Your task to perform on an android device: change the upload size in google photos Image 0: 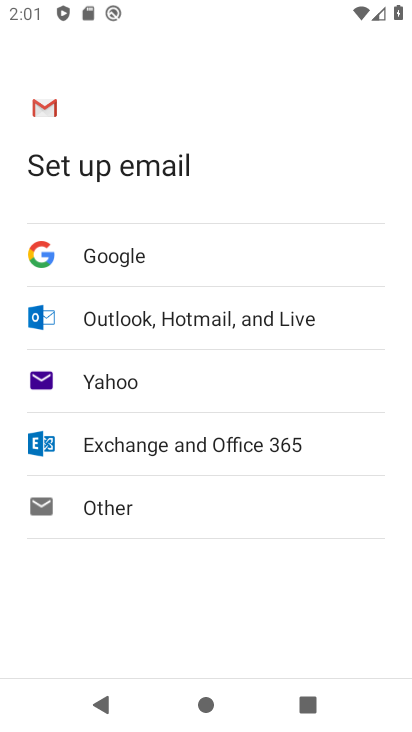
Step 0: press home button
Your task to perform on an android device: change the upload size in google photos Image 1: 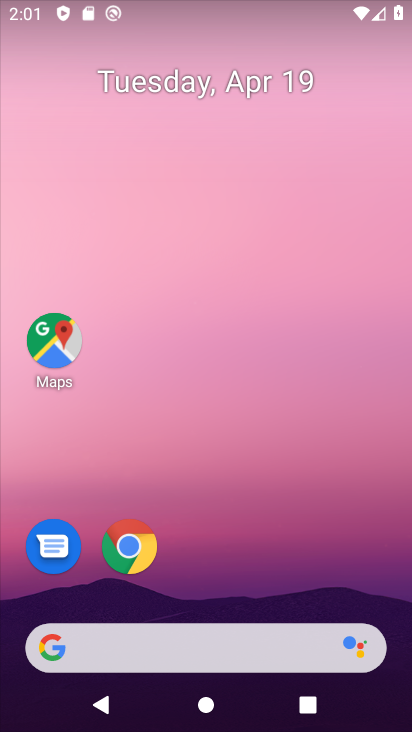
Step 1: drag from (206, 648) to (179, 105)
Your task to perform on an android device: change the upload size in google photos Image 2: 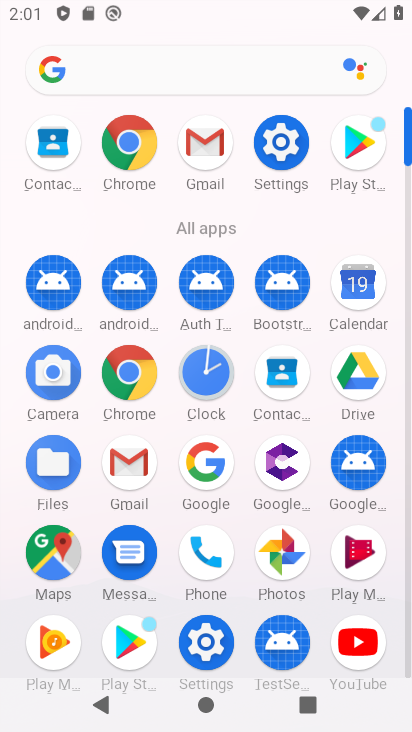
Step 2: click (281, 546)
Your task to perform on an android device: change the upload size in google photos Image 3: 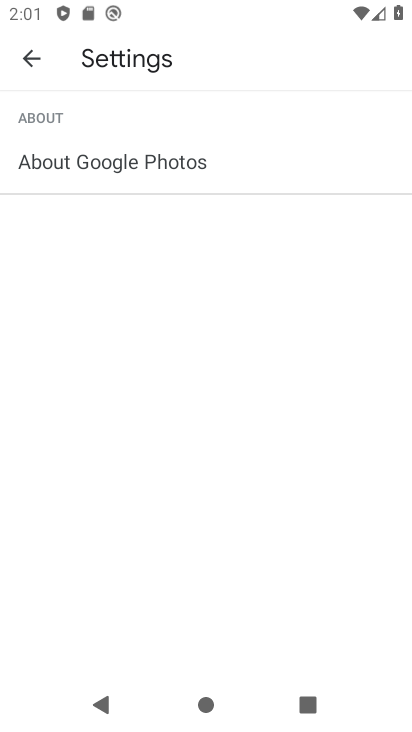
Step 3: click (31, 44)
Your task to perform on an android device: change the upload size in google photos Image 4: 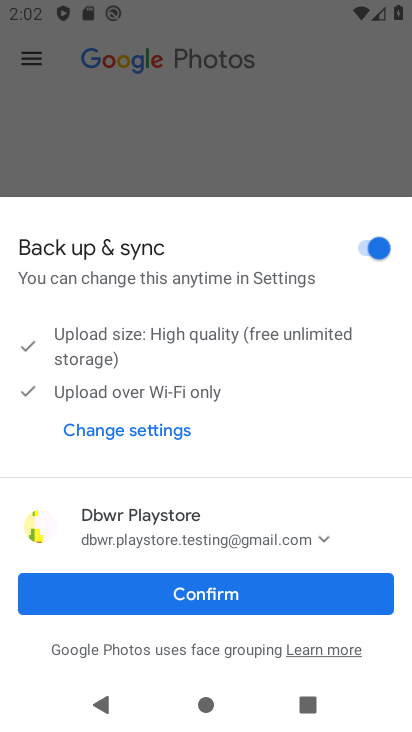
Step 4: click (208, 584)
Your task to perform on an android device: change the upload size in google photos Image 5: 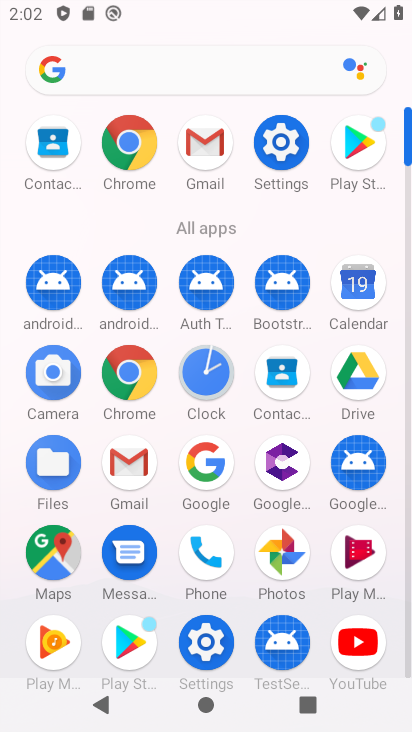
Step 5: click (283, 558)
Your task to perform on an android device: change the upload size in google photos Image 6: 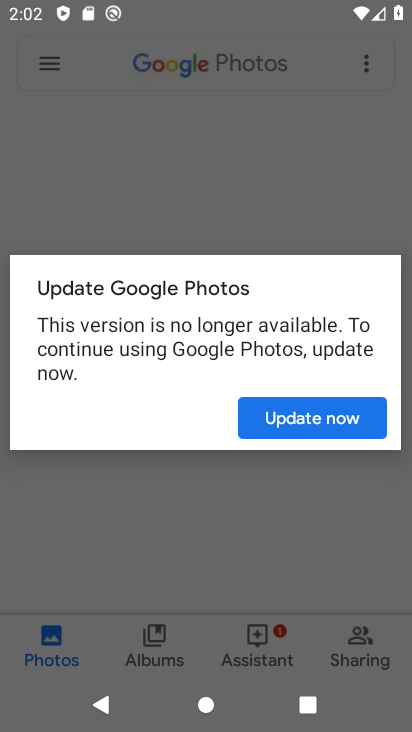
Step 6: click (301, 429)
Your task to perform on an android device: change the upload size in google photos Image 7: 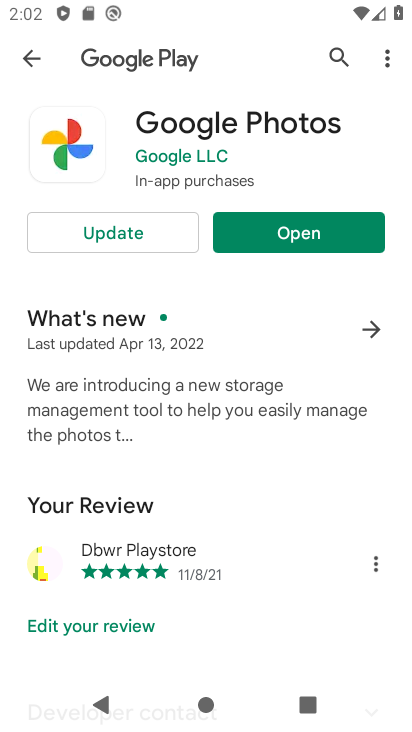
Step 7: click (166, 223)
Your task to perform on an android device: change the upload size in google photos Image 8: 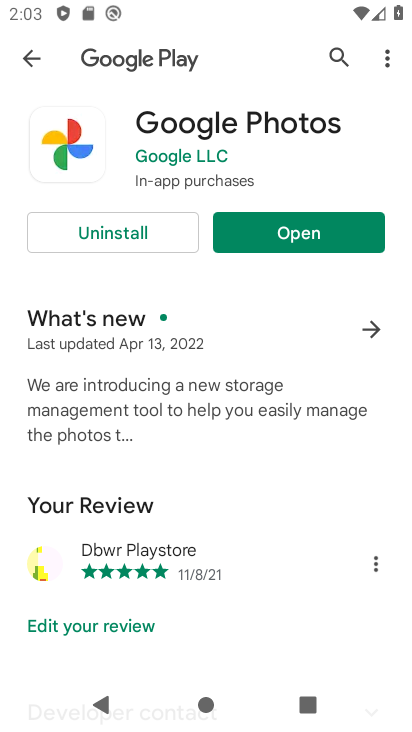
Step 8: click (248, 244)
Your task to perform on an android device: change the upload size in google photos Image 9: 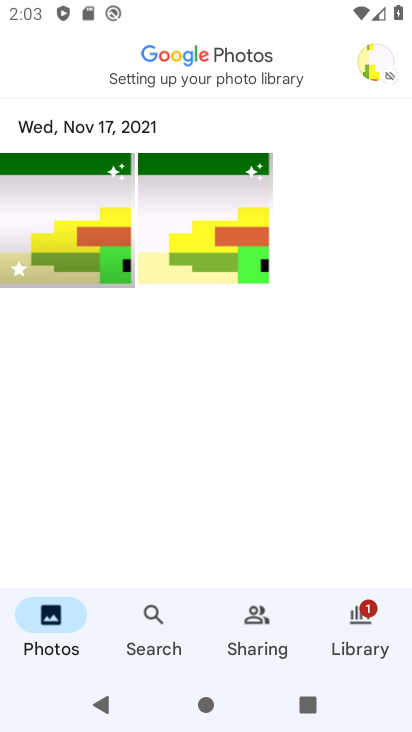
Step 9: click (380, 84)
Your task to perform on an android device: change the upload size in google photos Image 10: 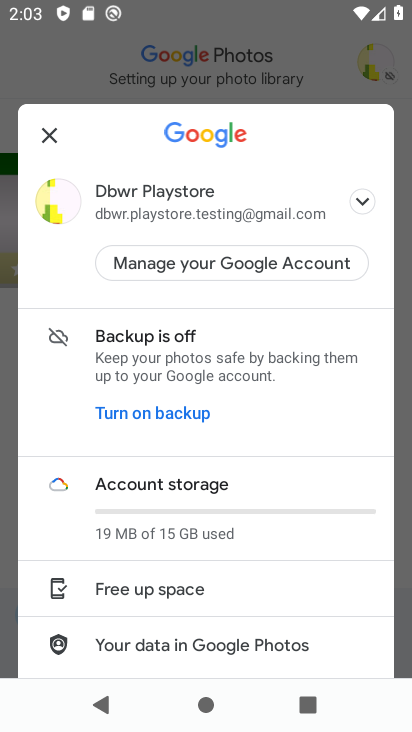
Step 10: drag from (210, 630) to (201, 137)
Your task to perform on an android device: change the upload size in google photos Image 11: 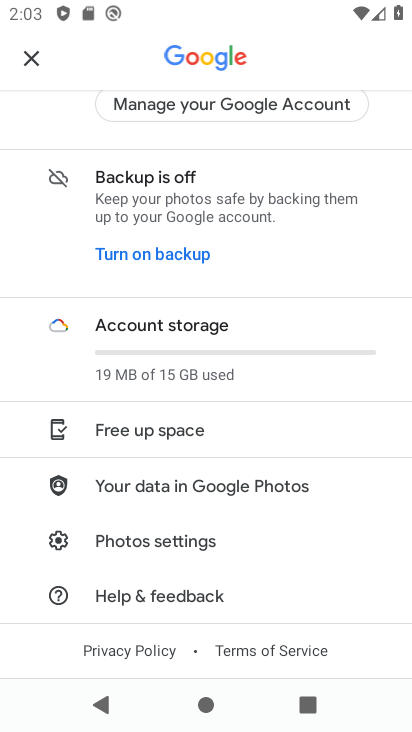
Step 11: click (191, 541)
Your task to perform on an android device: change the upload size in google photos Image 12: 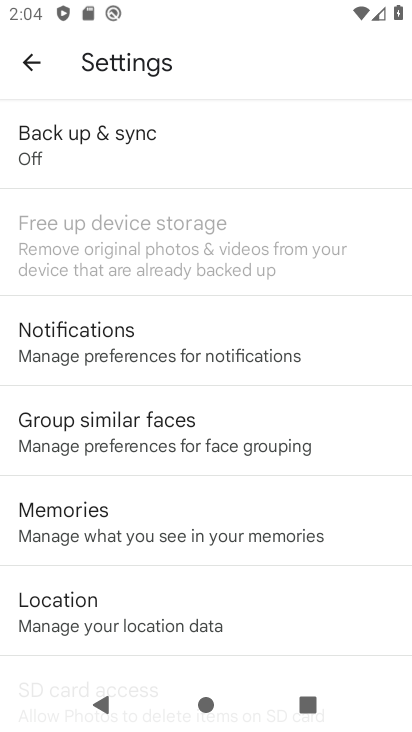
Step 12: click (88, 162)
Your task to perform on an android device: change the upload size in google photos Image 13: 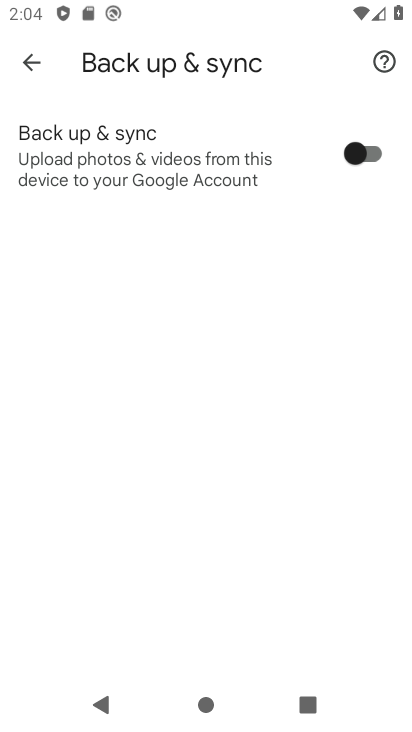
Step 13: click (368, 161)
Your task to perform on an android device: change the upload size in google photos Image 14: 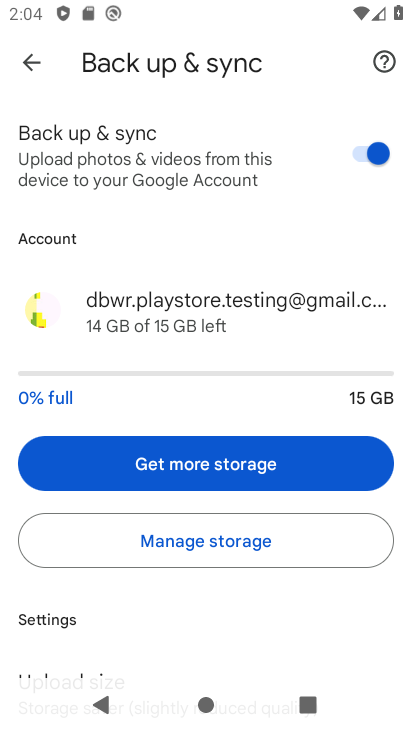
Step 14: drag from (227, 604) to (206, 165)
Your task to perform on an android device: change the upload size in google photos Image 15: 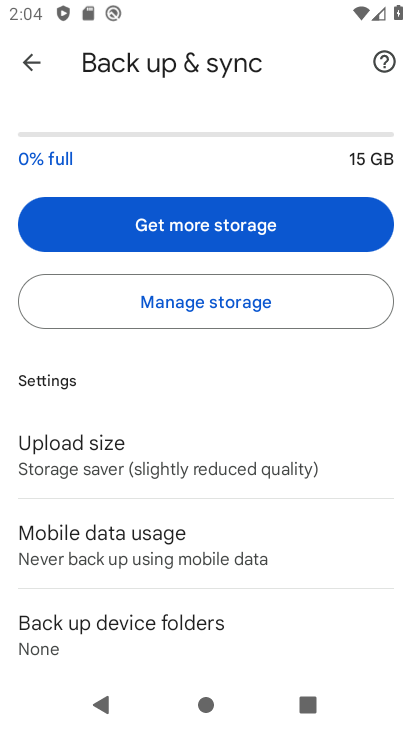
Step 15: click (102, 444)
Your task to perform on an android device: change the upload size in google photos Image 16: 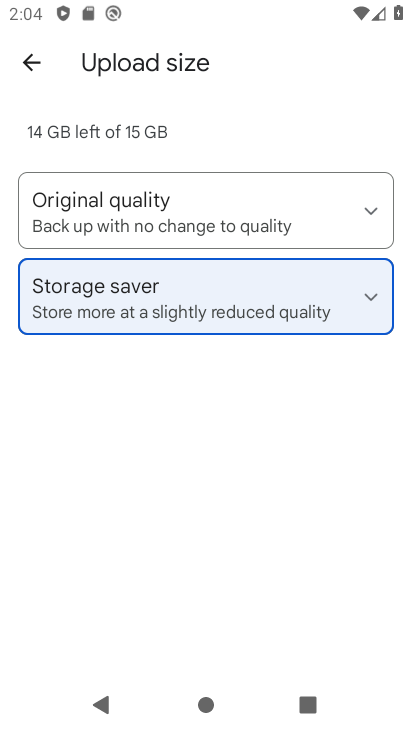
Step 16: click (101, 213)
Your task to perform on an android device: change the upload size in google photos Image 17: 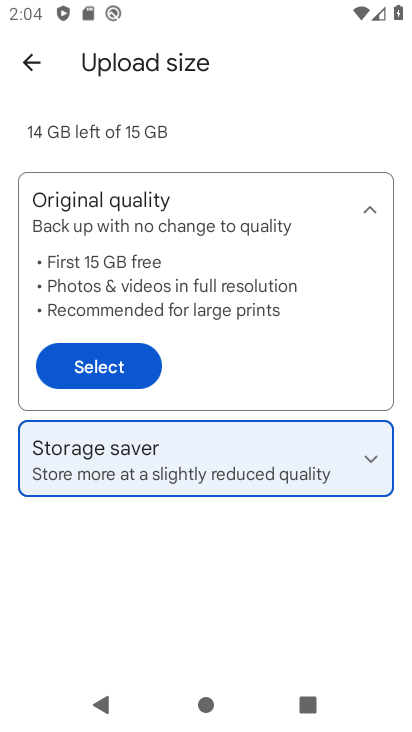
Step 17: click (94, 368)
Your task to perform on an android device: change the upload size in google photos Image 18: 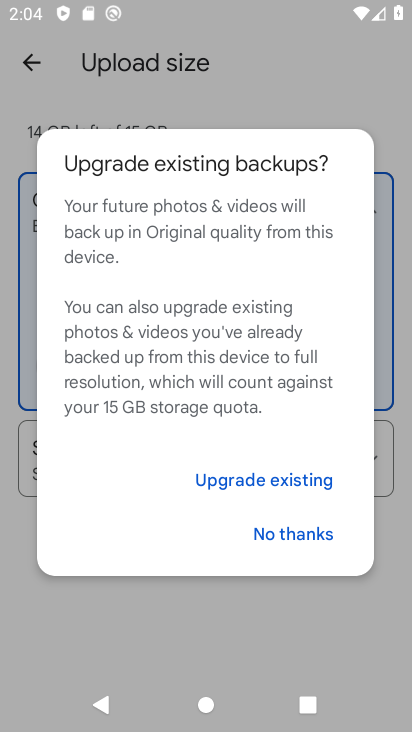
Step 18: click (301, 544)
Your task to perform on an android device: change the upload size in google photos Image 19: 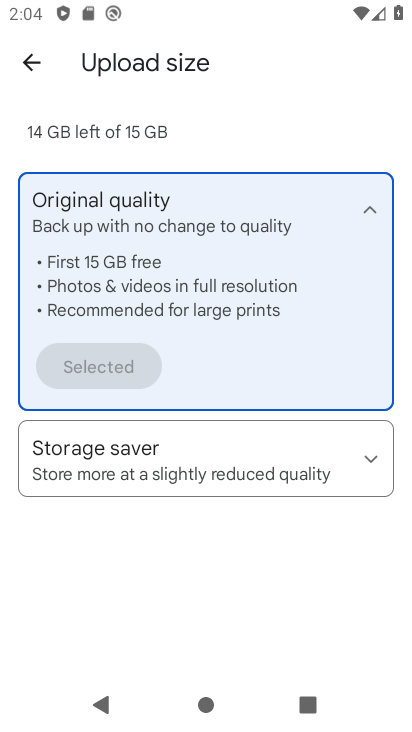
Step 19: task complete